Your task to perform on an android device: Open eBay Image 0: 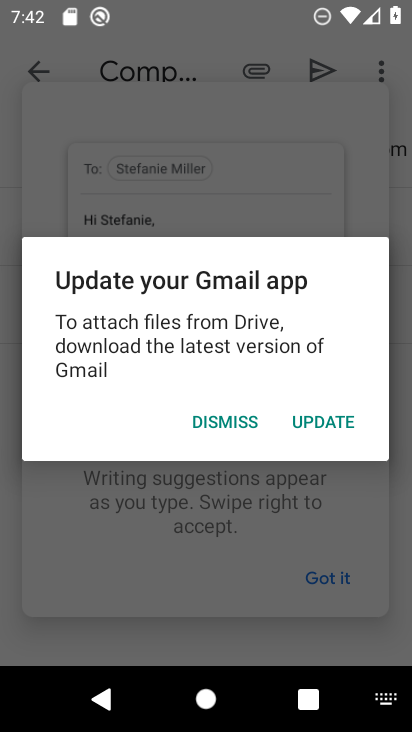
Step 0: press home button
Your task to perform on an android device: Open eBay Image 1: 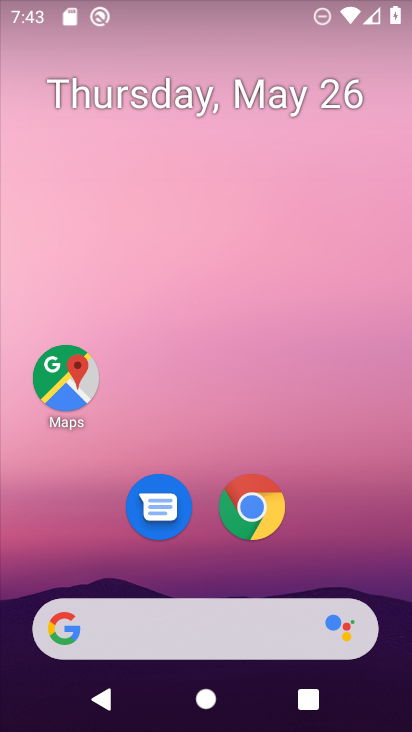
Step 1: click (255, 509)
Your task to perform on an android device: Open eBay Image 2: 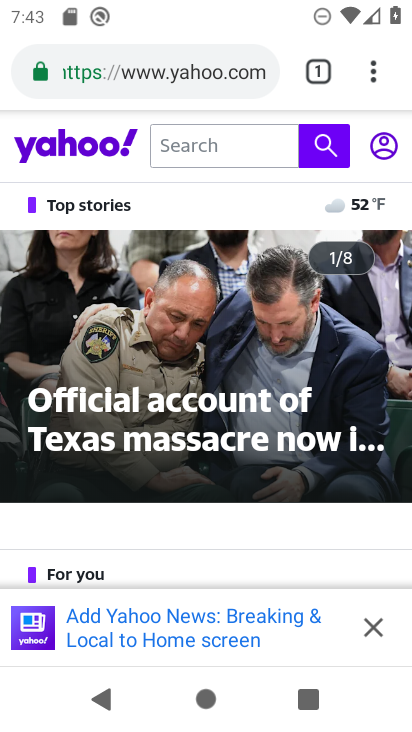
Step 2: press back button
Your task to perform on an android device: Open eBay Image 3: 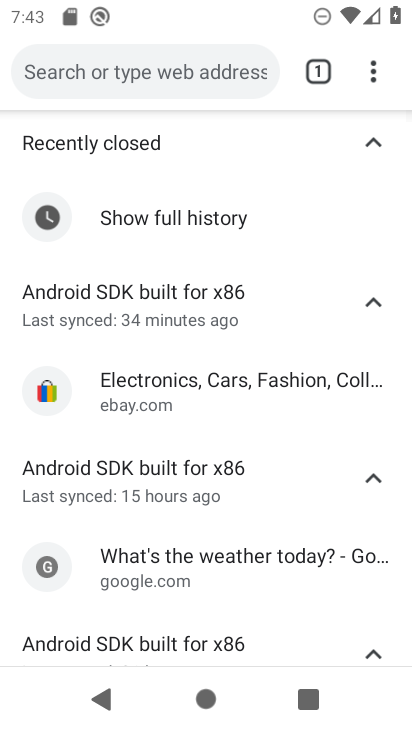
Step 3: press back button
Your task to perform on an android device: Open eBay Image 4: 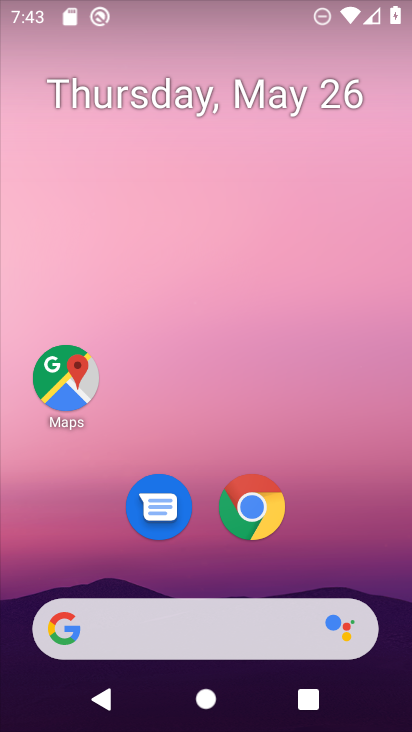
Step 4: click (257, 509)
Your task to perform on an android device: Open eBay Image 5: 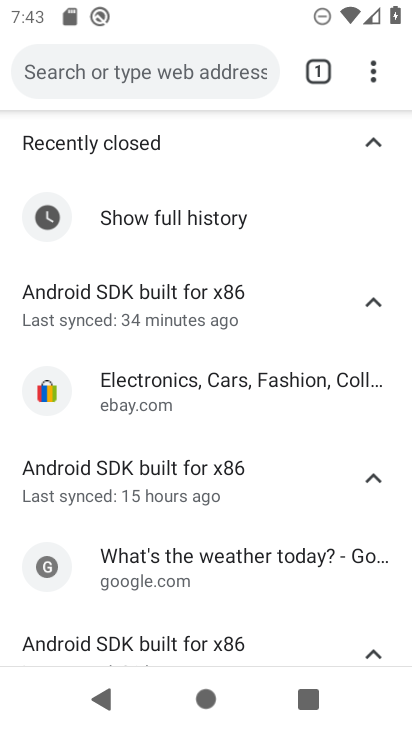
Step 5: press back button
Your task to perform on an android device: Open eBay Image 6: 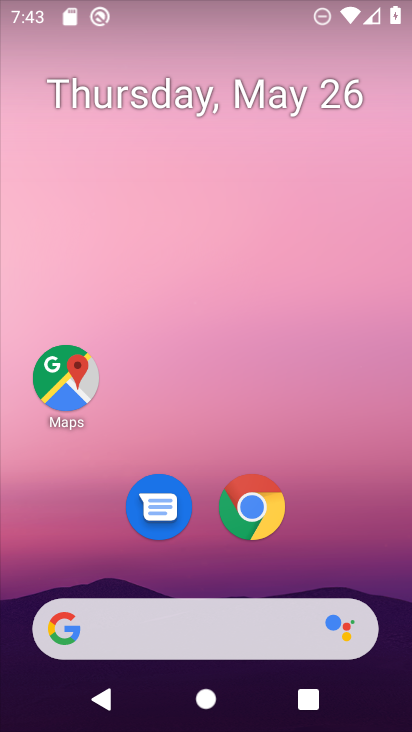
Step 6: click (207, 534)
Your task to perform on an android device: Open eBay Image 7: 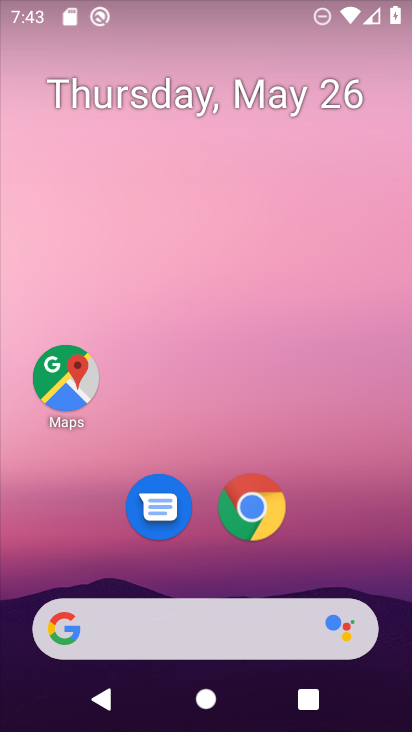
Step 7: click (251, 524)
Your task to perform on an android device: Open eBay Image 8: 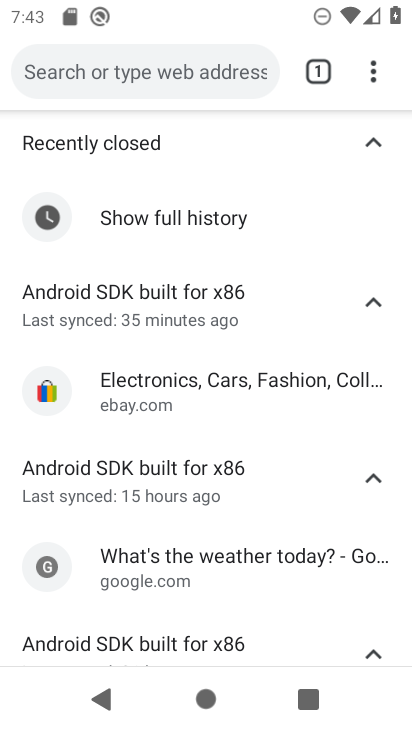
Step 8: click (220, 73)
Your task to perform on an android device: Open eBay Image 9: 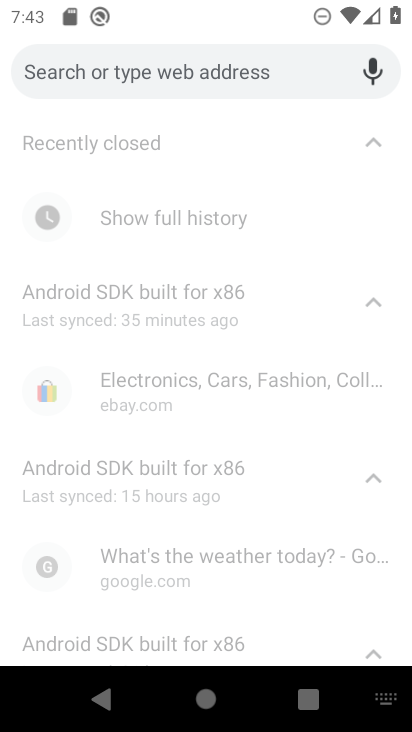
Step 9: type "www.ebay.com"
Your task to perform on an android device: Open eBay Image 10: 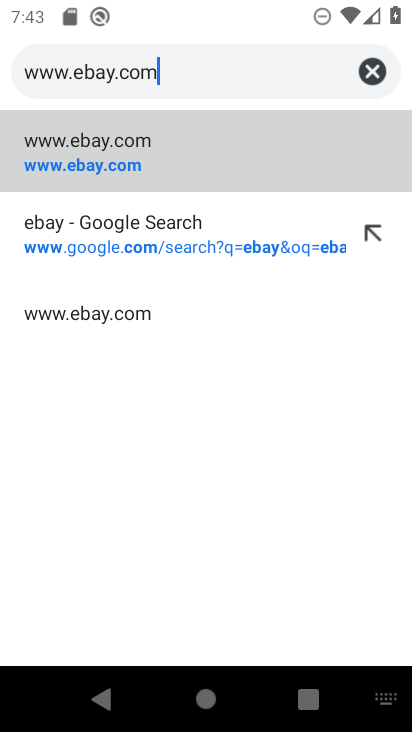
Step 10: click (102, 148)
Your task to perform on an android device: Open eBay Image 11: 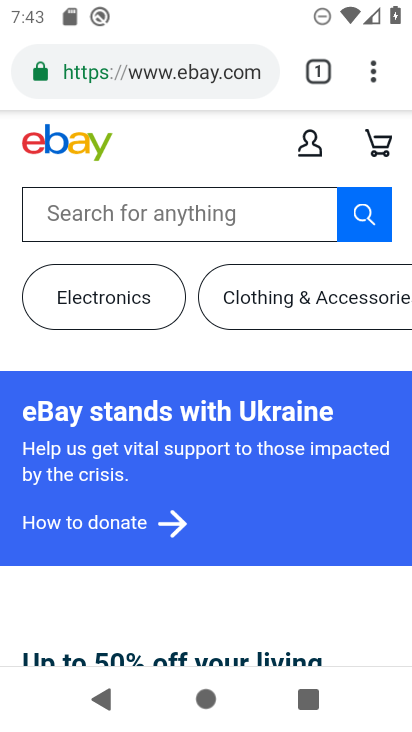
Step 11: task complete